Your task to perform on an android device: toggle javascript in the chrome app Image 0: 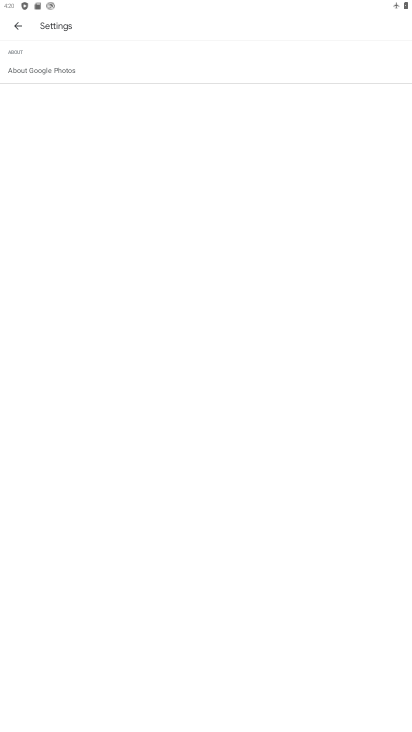
Step 0: press home button
Your task to perform on an android device: toggle javascript in the chrome app Image 1: 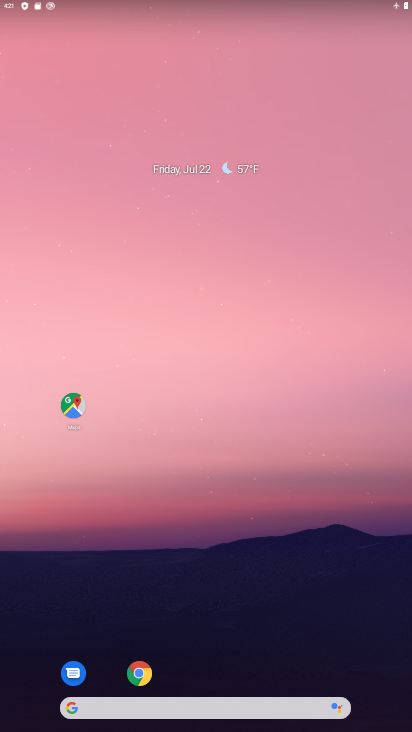
Step 1: click (133, 672)
Your task to perform on an android device: toggle javascript in the chrome app Image 2: 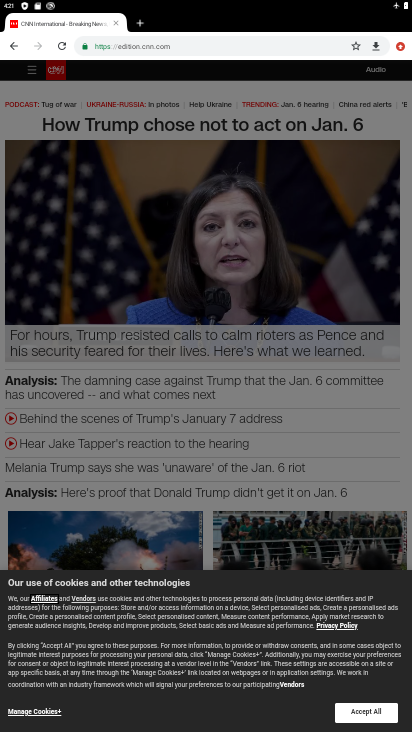
Step 2: click (403, 47)
Your task to perform on an android device: toggle javascript in the chrome app Image 3: 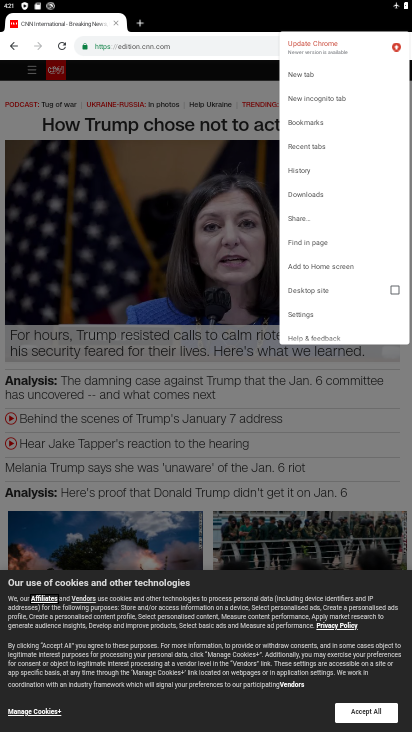
Step 3: click (306, 309)
Your task to perform on an android device: toggle javascript in the chrome app Image 4: 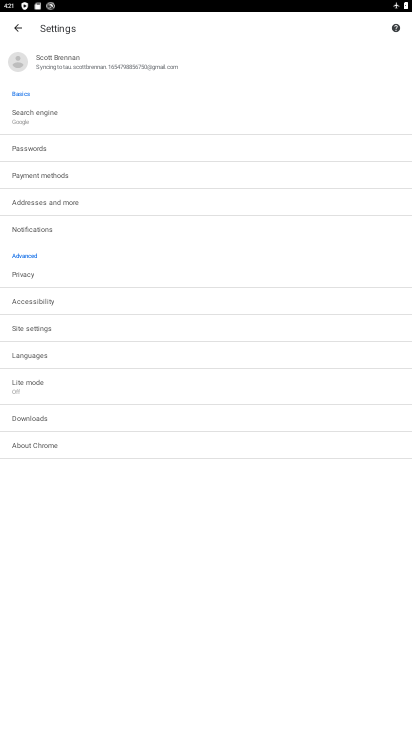
Step 4: click (47, 326)
Your task to perform on an android device: toggle javascript in the chrome app Image 5: 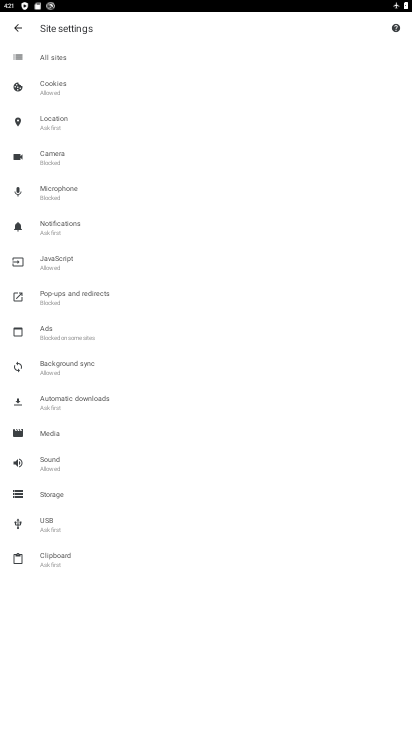
Step 5: click (68, 262)
Your task to perform on an android device: toggle javascript in the chrome app Image 6: 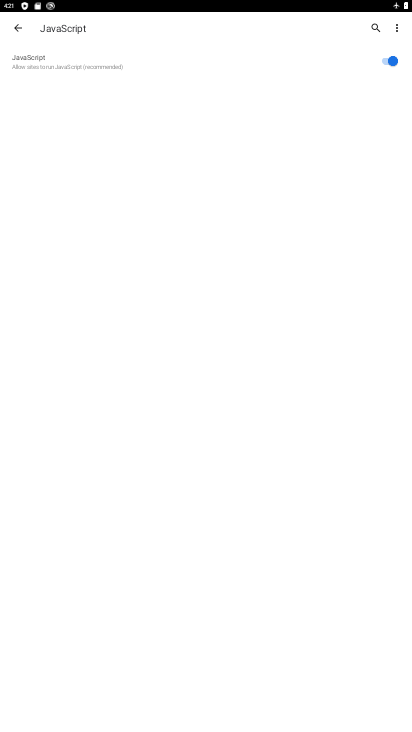
Step 6: click (392, 53)
Your task to perform on an android device: toggle javascript in the chrome app Image 7: 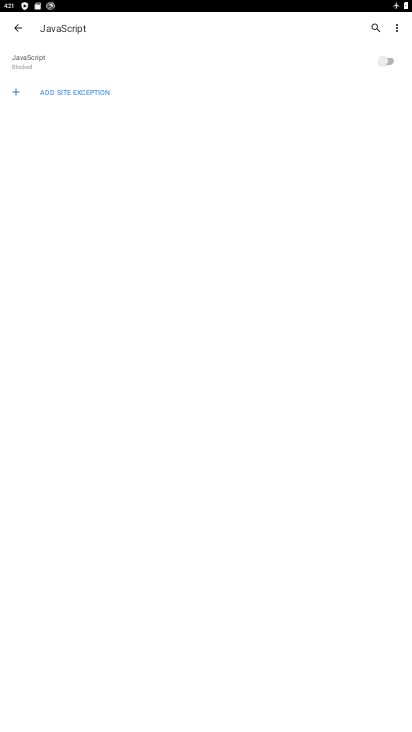
Step 7: task complete